Your task to perform on an android device: turn off sleep mode Image 0: 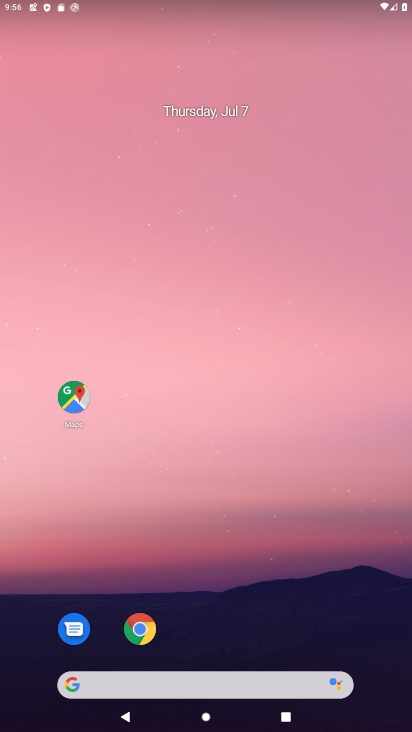
Step 0: drag from (210, 667) to (202, 115)
Your task to perform on an android device: turn off sleep mode Image 1: 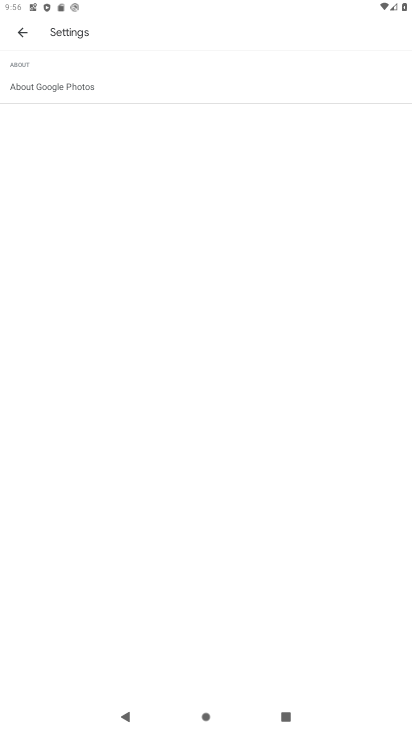
Step 1: press home button
Your task to perform on an android device: turn off sleep mode Image 2: 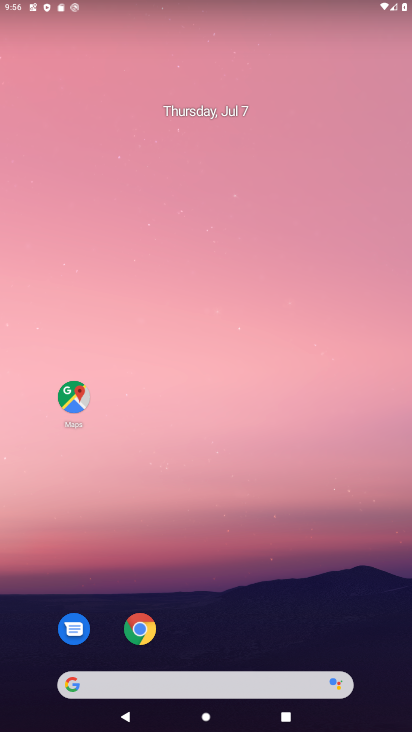
Step 2: drag from (199, 643) to (263, 11)
Your task to perform on an android device: turn off sleep mode Image 3: 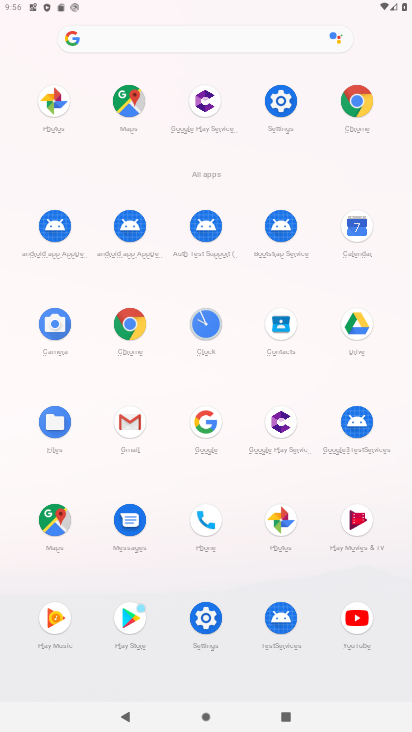
Step 3: click (273, 146)
Your task to perform on an android device: turn off sleep mode Image 4: 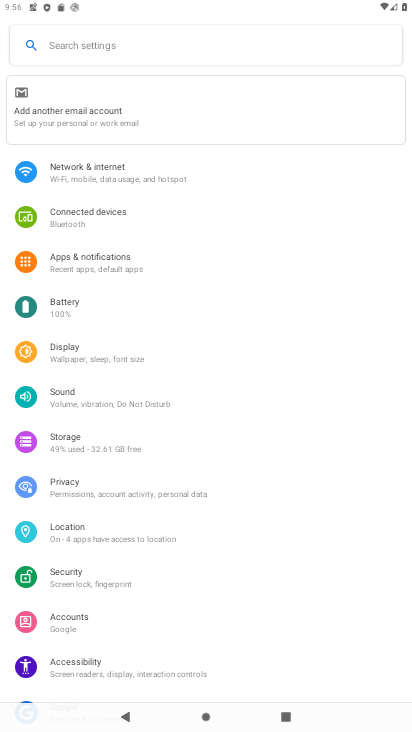
Step 4: click (65, 354)
Your task to perform on an android device: turn off sleep mode Image 5: 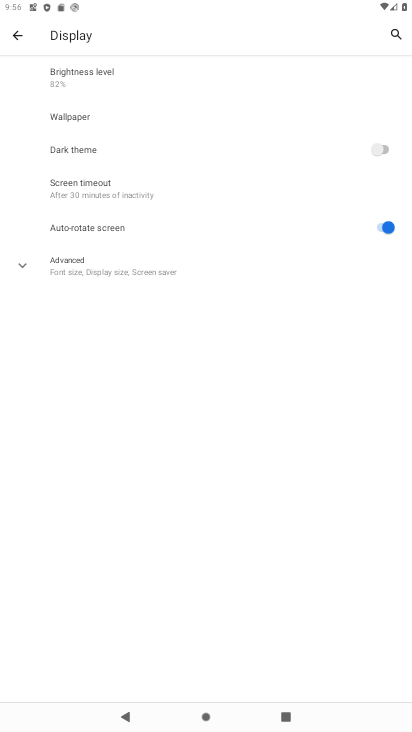
Step 5: task complete